Your task to perform on an android device: read, delete, or share a saved page in the chrome app Image 0: 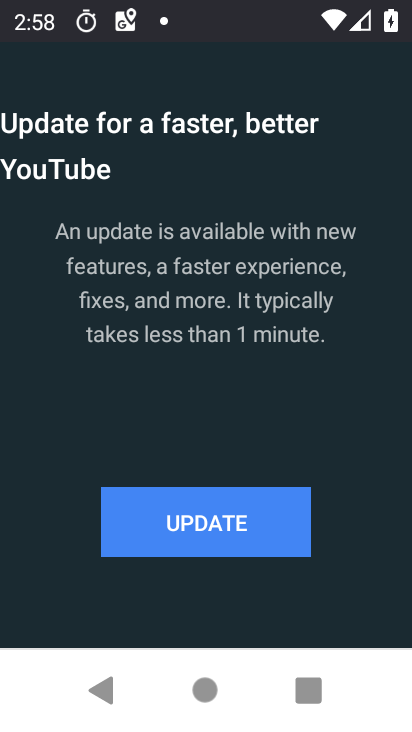
Step 0: press home button
Your task to perform on an android device: read, delete, or share a saved page in the chrome app Image 1: 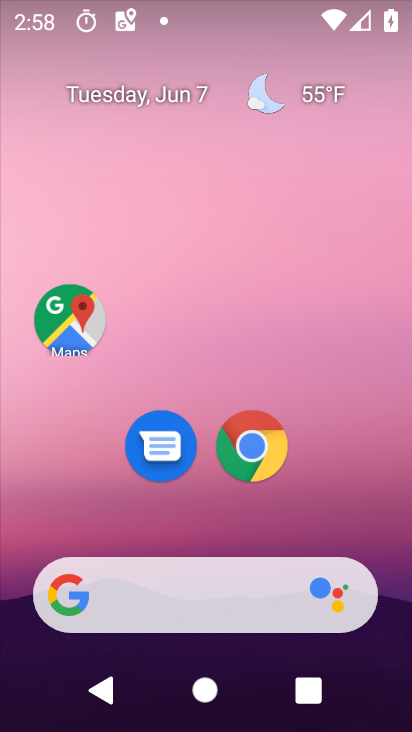
Step 1: click (247, 454)
Your task to perform on an android device: read, delete, or share a saved page in the chrome app Image 2: 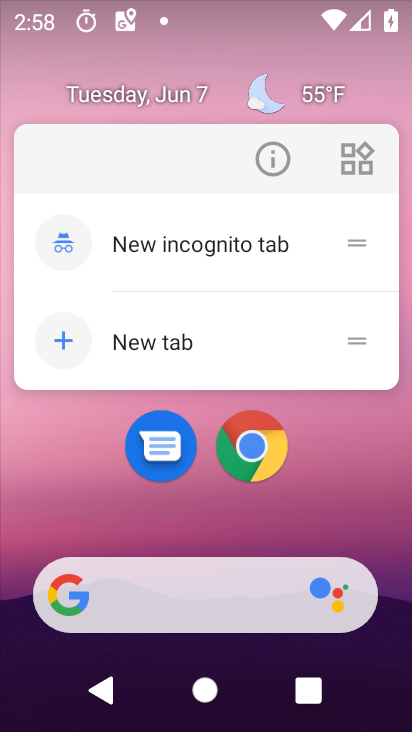
Step 2: click (247, 455)
Your task to perform on an android device: read, delete, or share a saved page in the chrome app Image 3: 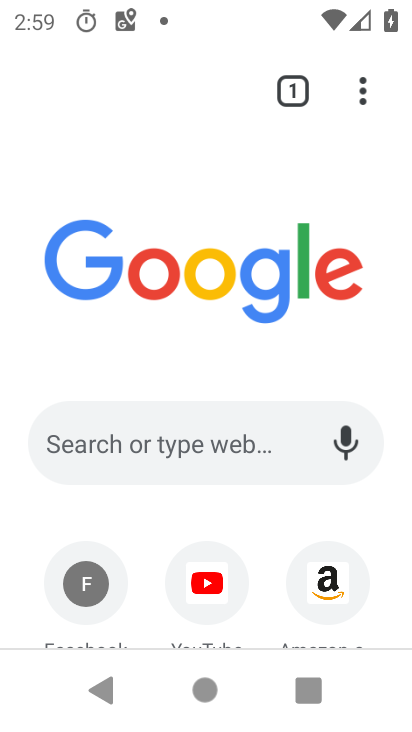
Step 3: click (355, 89)
Your task to perform on an android device: read, delete, or share a saved page in the chrome app Image 4: 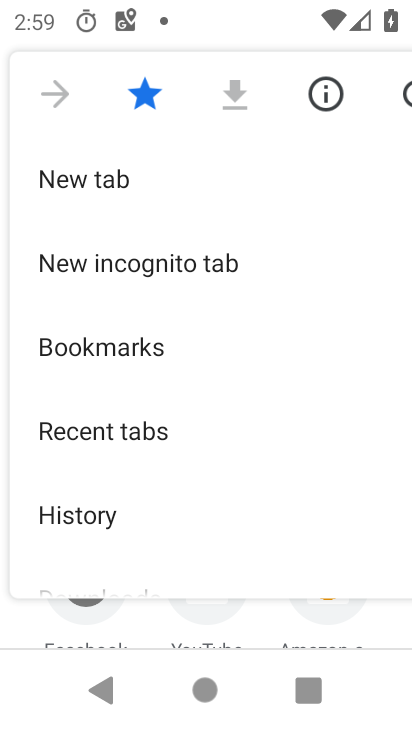
Step 4: drag from (95, 486) to (164, 273)
Your task to perform on an android device: read, delete, or share a saved page in the chrome app Image 5: 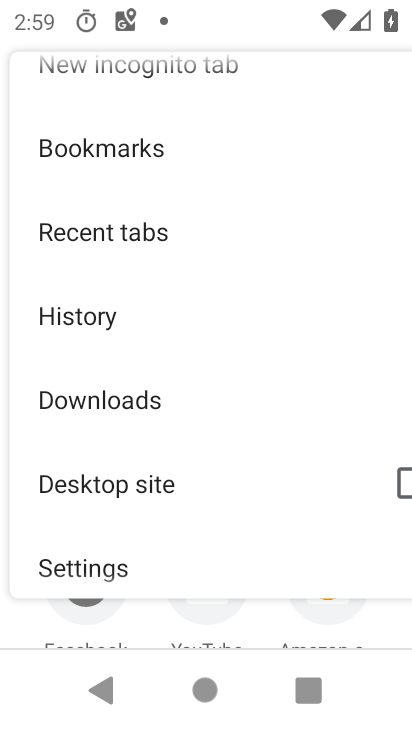
Step 5: click (78, 410)
Your task to perform on an android device: read, delete, or share a saved page in the chrome app Image 6: 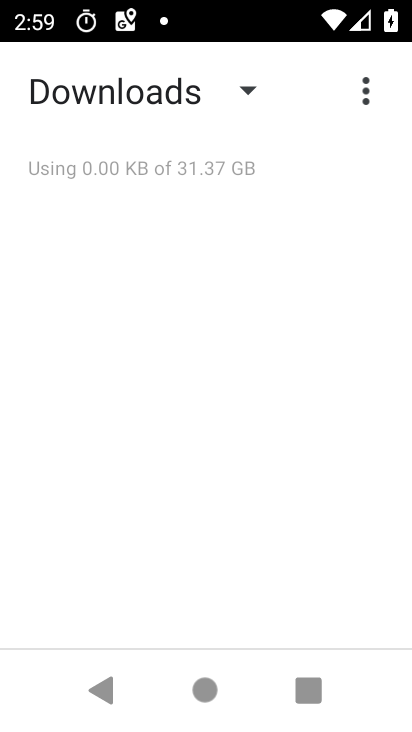
Step 6: task complete